Your task to perform on an android device: Go to battery settings Image 0: 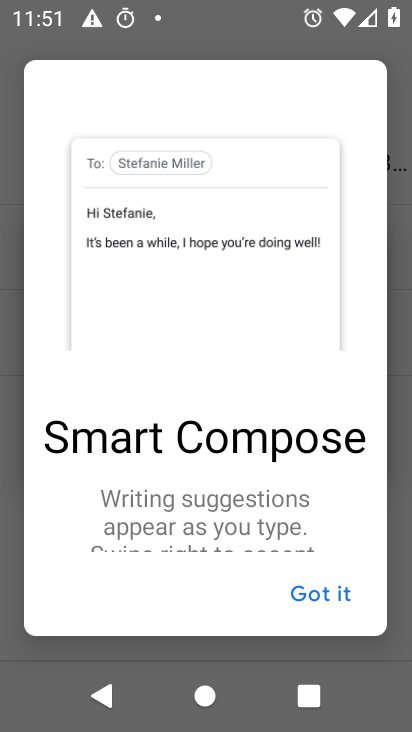
Step 0: press back button
Your task to perform on an android device: Go to battery settings Image 1: 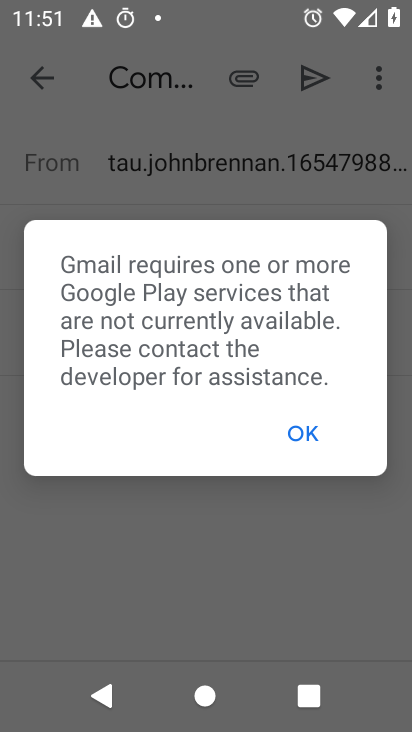
Step 1: press home button
Your task to perform on an android device: Go to battery settings Image 2: 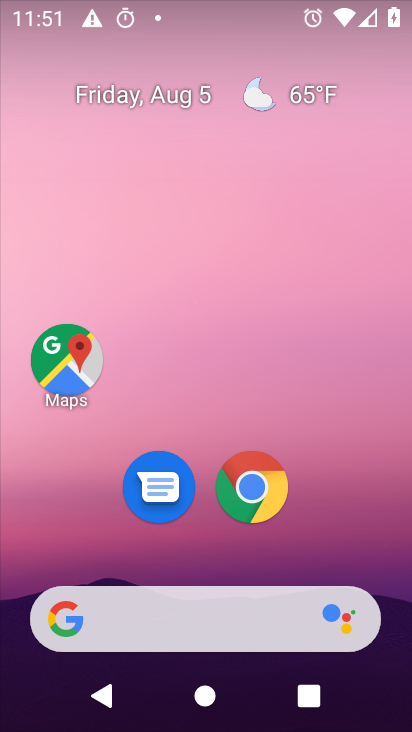
Step 2: drag from (209, 572) to (274, 39)
Your task to perform on an android device: Go to battery settings Image 3: 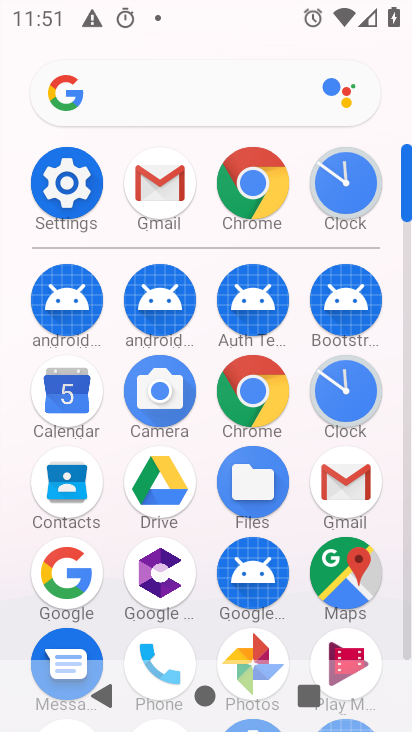
Step 3: click (84, 193)
Your task to perform on an android device: Go to battery settings Image 4: 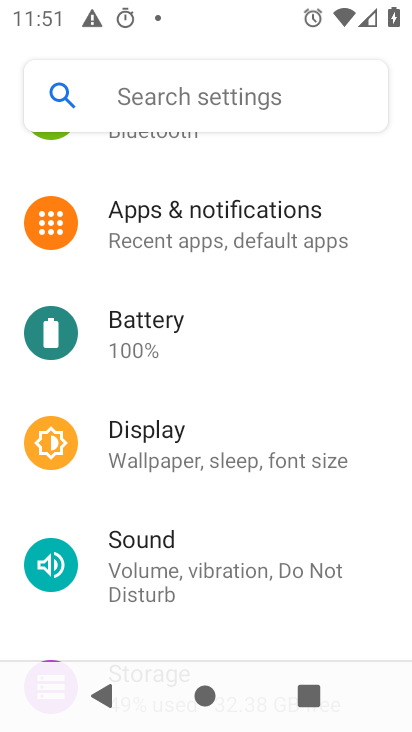
Step 4: click (164, 326)
Your task to perform on an android device: Go to battery settings Image 5: 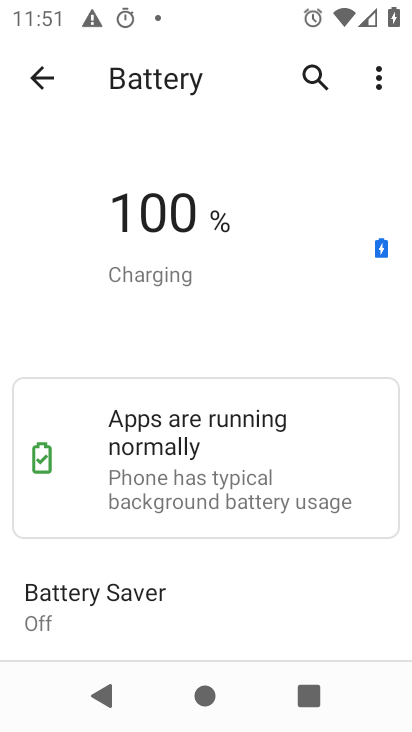
Step 5: task complete